Your task to perform on an android device: add a contact in the contacts app Image 0: 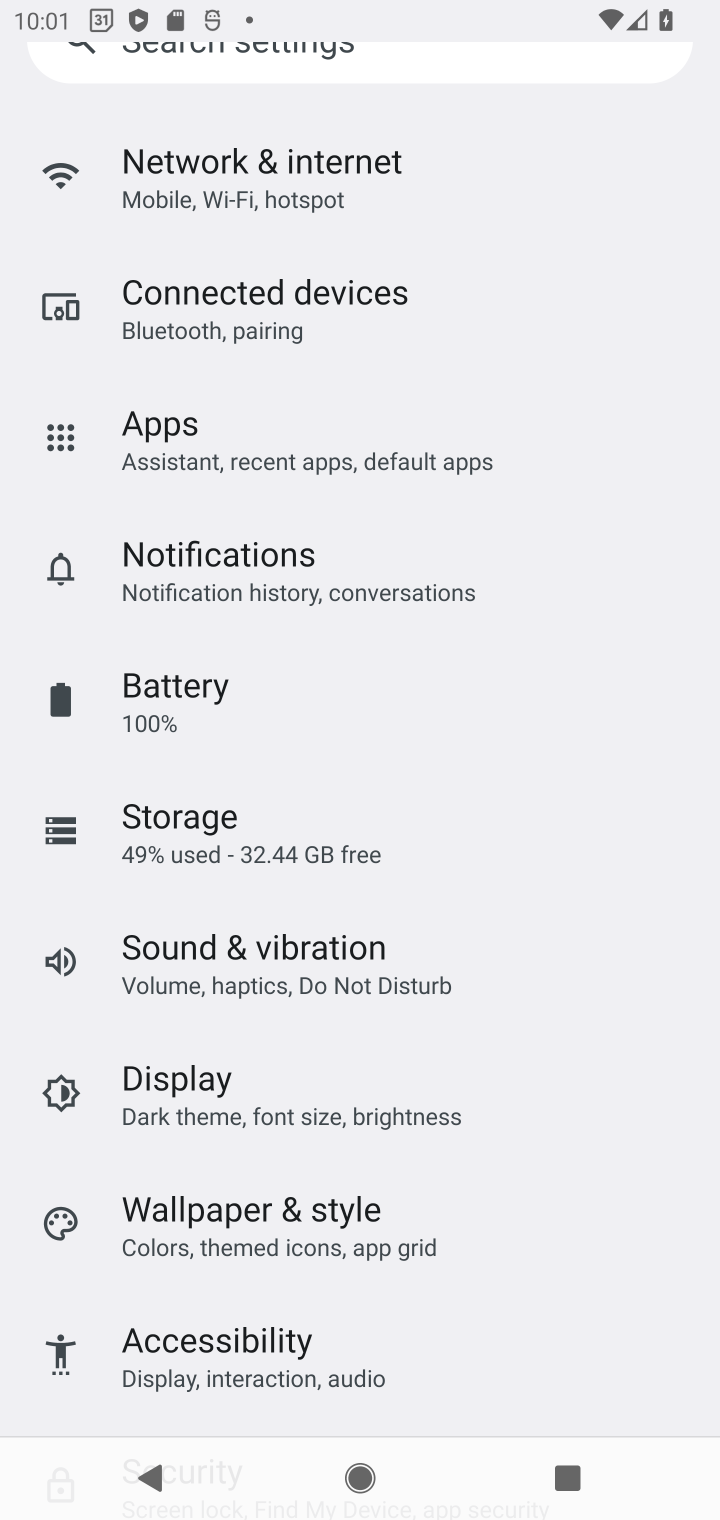
Step 0: press home button
Your task to perform on an android device: add a contact in the contacts app Image 1: 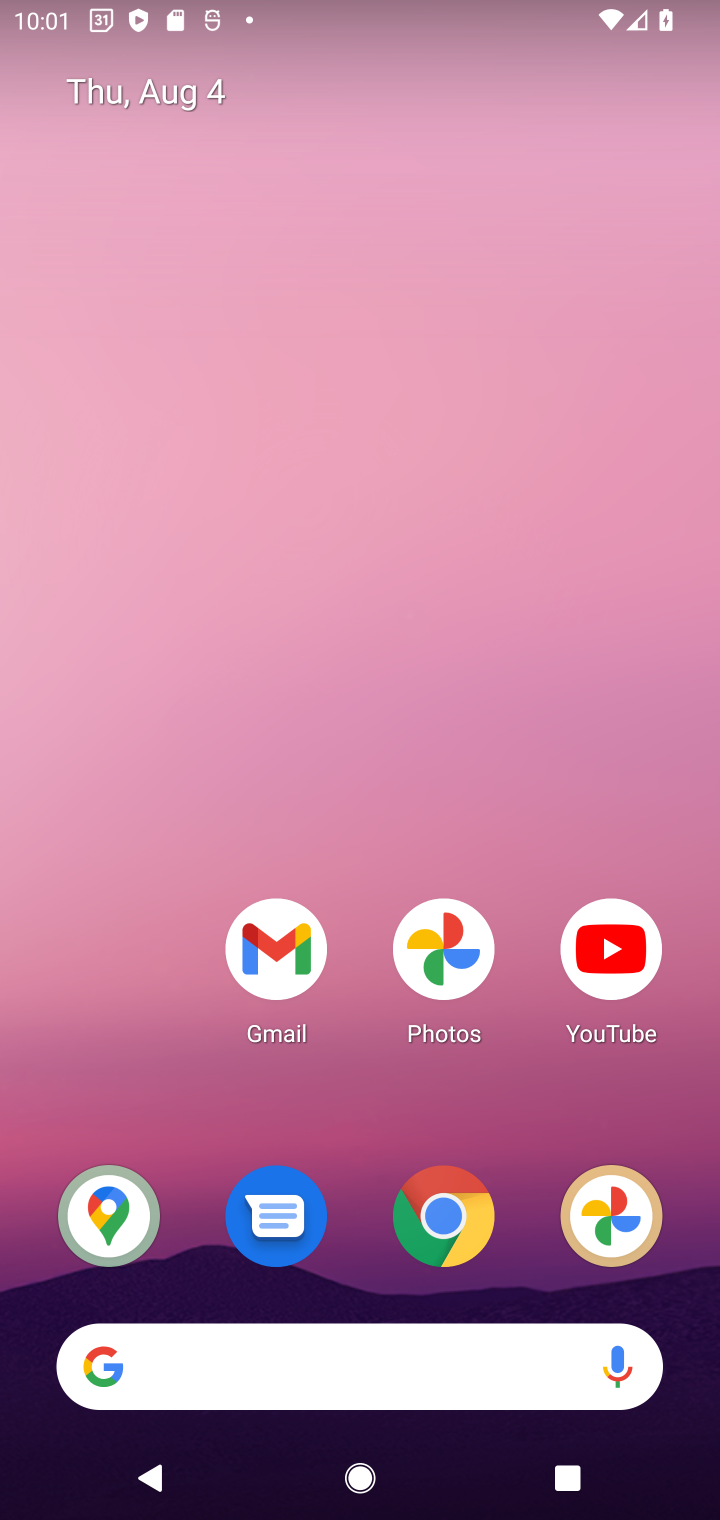
Step 1: drag from (296, 1374) to (354, 164)
Your task to perform on an android device: add a contact in the contacts app Image 2: 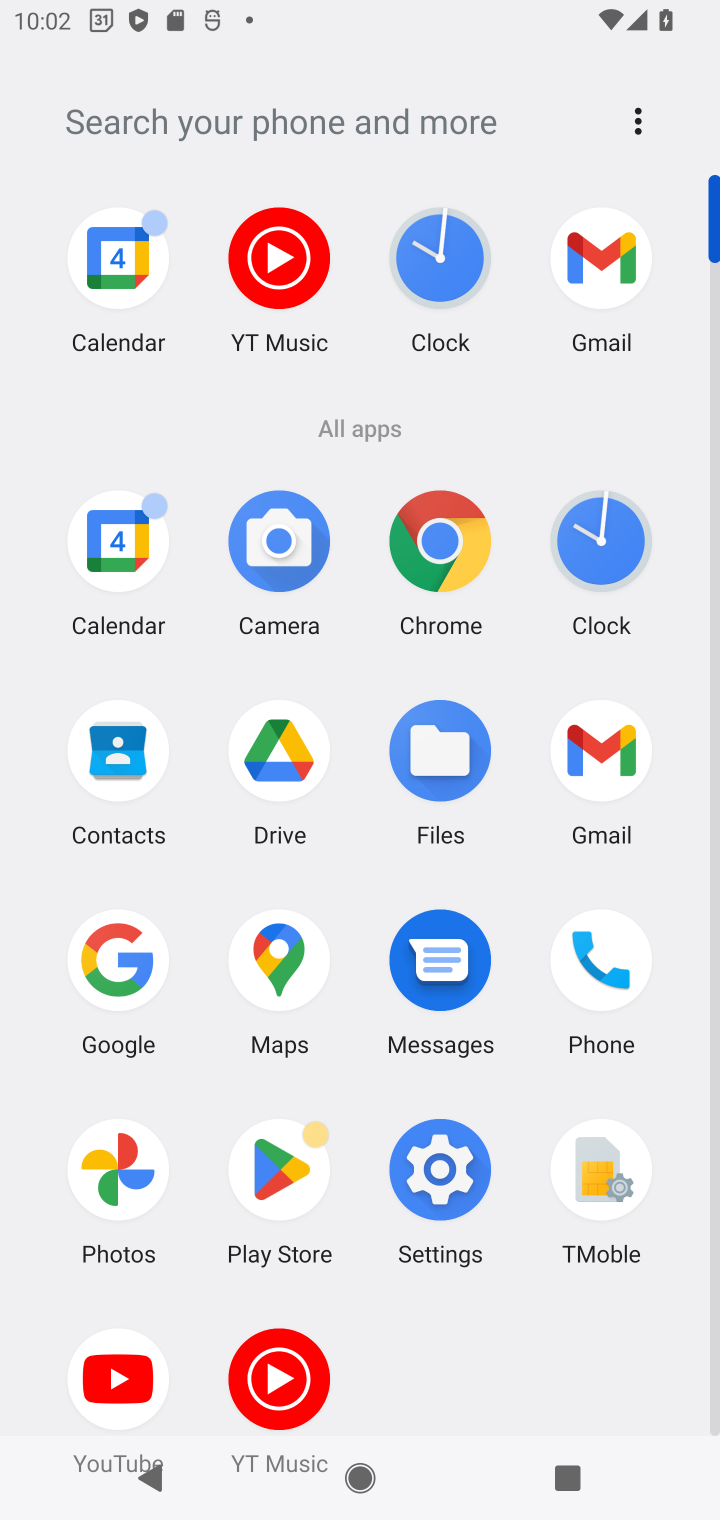
Step 2: click (119, 753)
Your task to perform on an android device: add a contact in the contacts app Image 3: 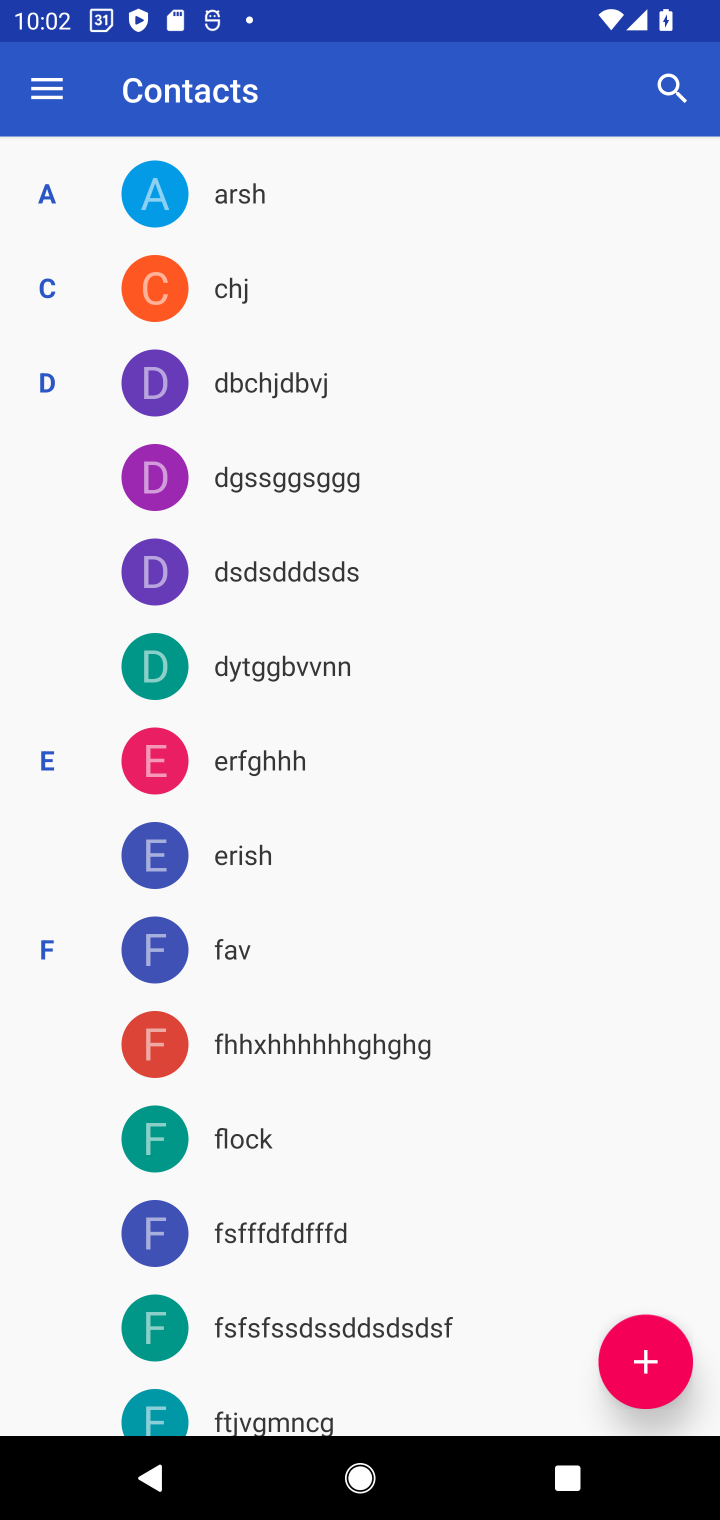
Step 3: click (644, 1364)
Your task to perform on an android device: add a contact in the contacts app Image 4: 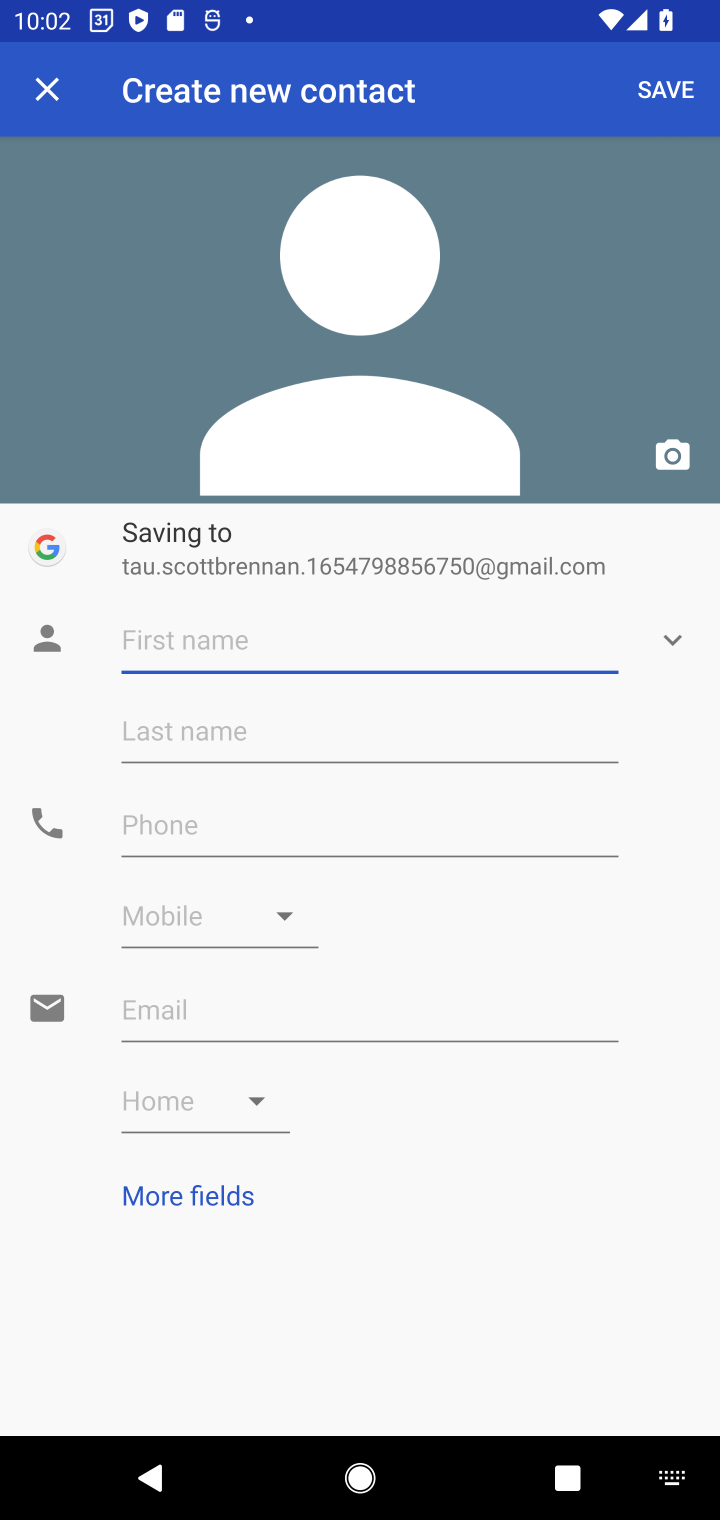
Step 4: type "Ayush"
Your task to perform on an android device: add a contact in the contacts app Image 5: 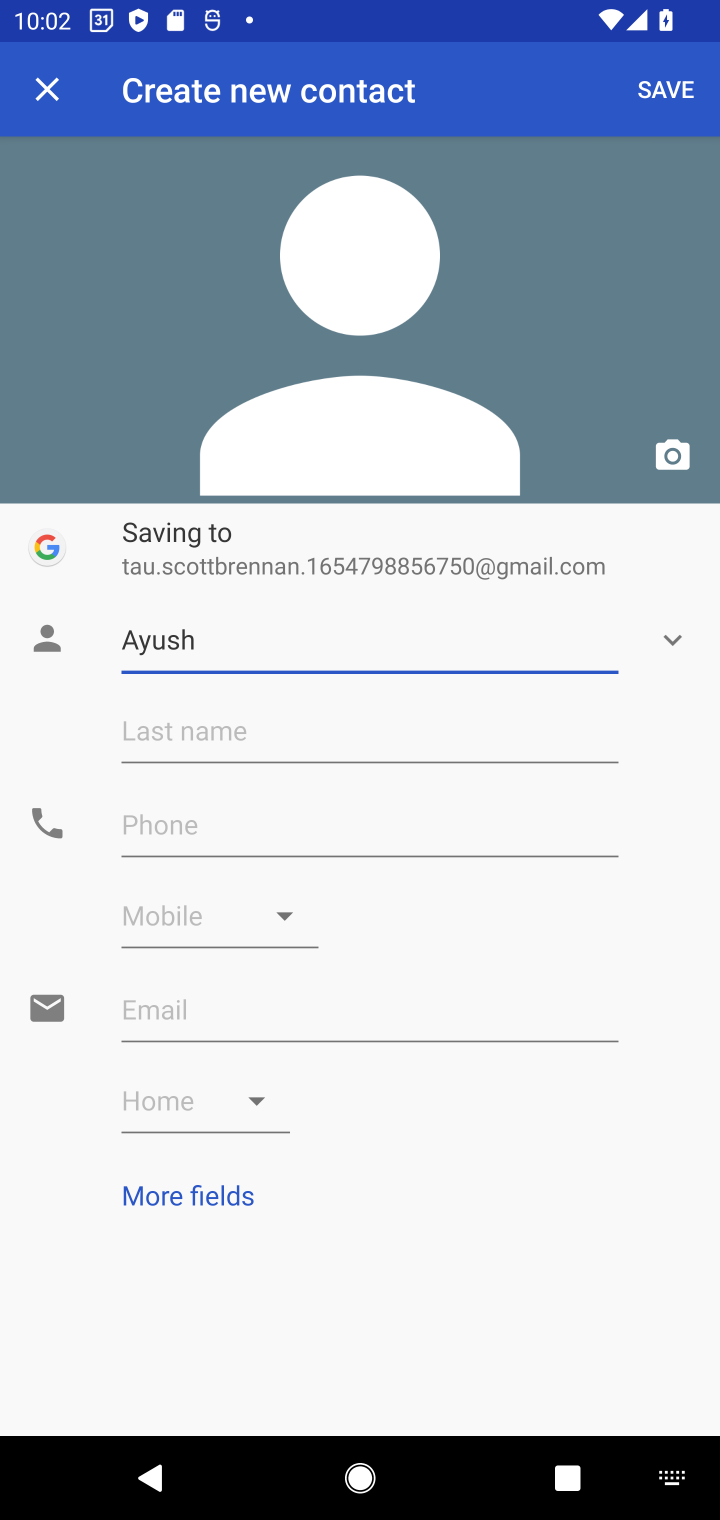
Step 5: click (381, 760)
Your task to perform on an android device: add a contact in the contacts app Image 6: 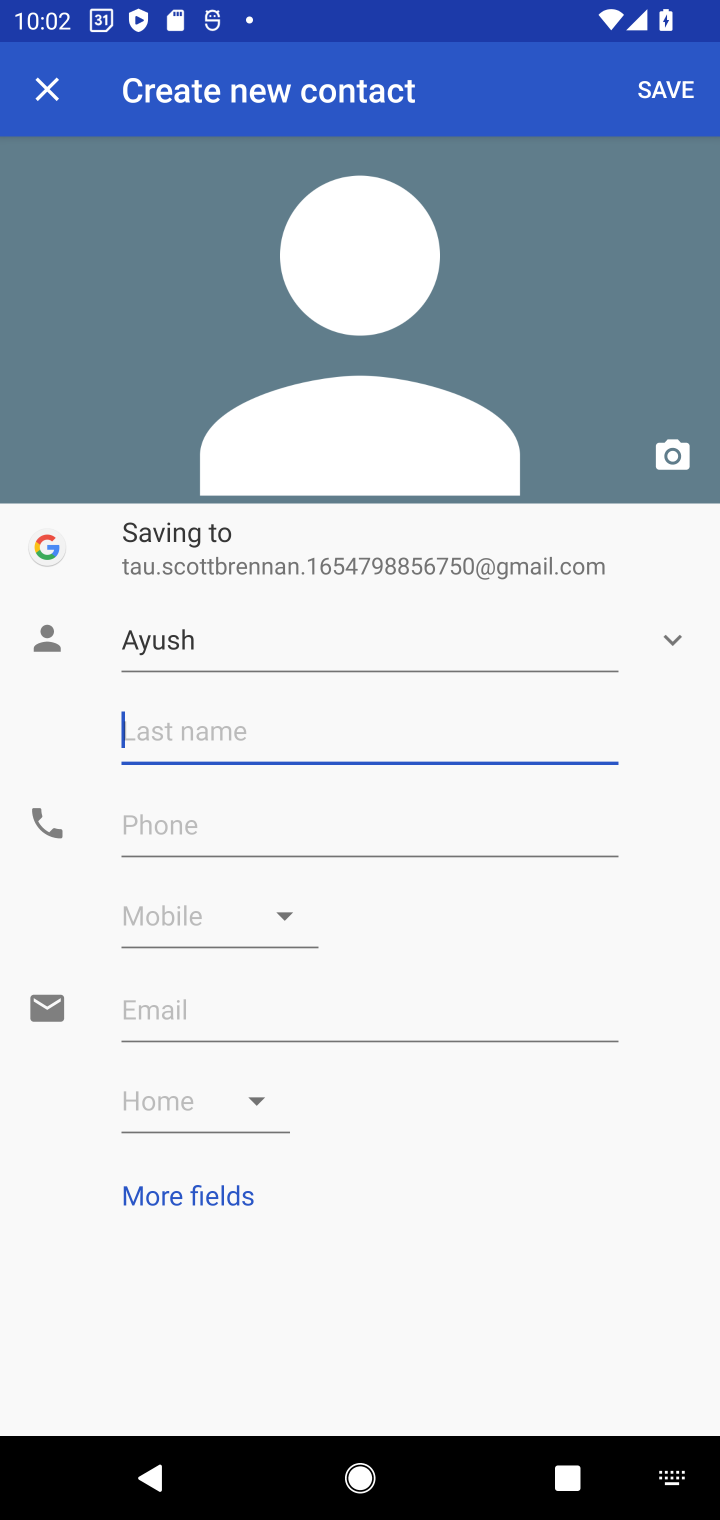
Step 6: type "Mishra"
Your task to perform on an android device: add a contact in the contacts app Image 7: 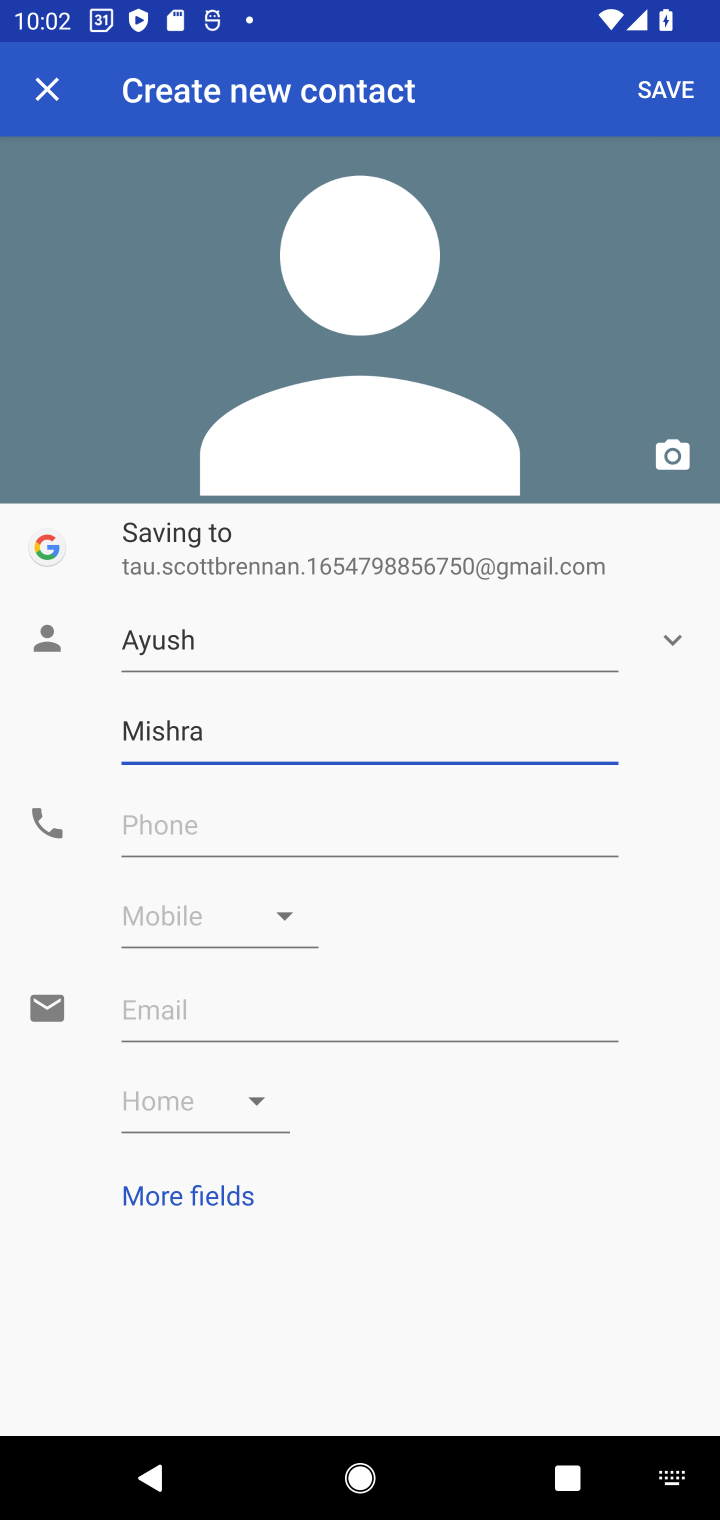
Step 7: click (479, 830)
Your task to perform on an android device: add a contact in the contacts app Image 8: 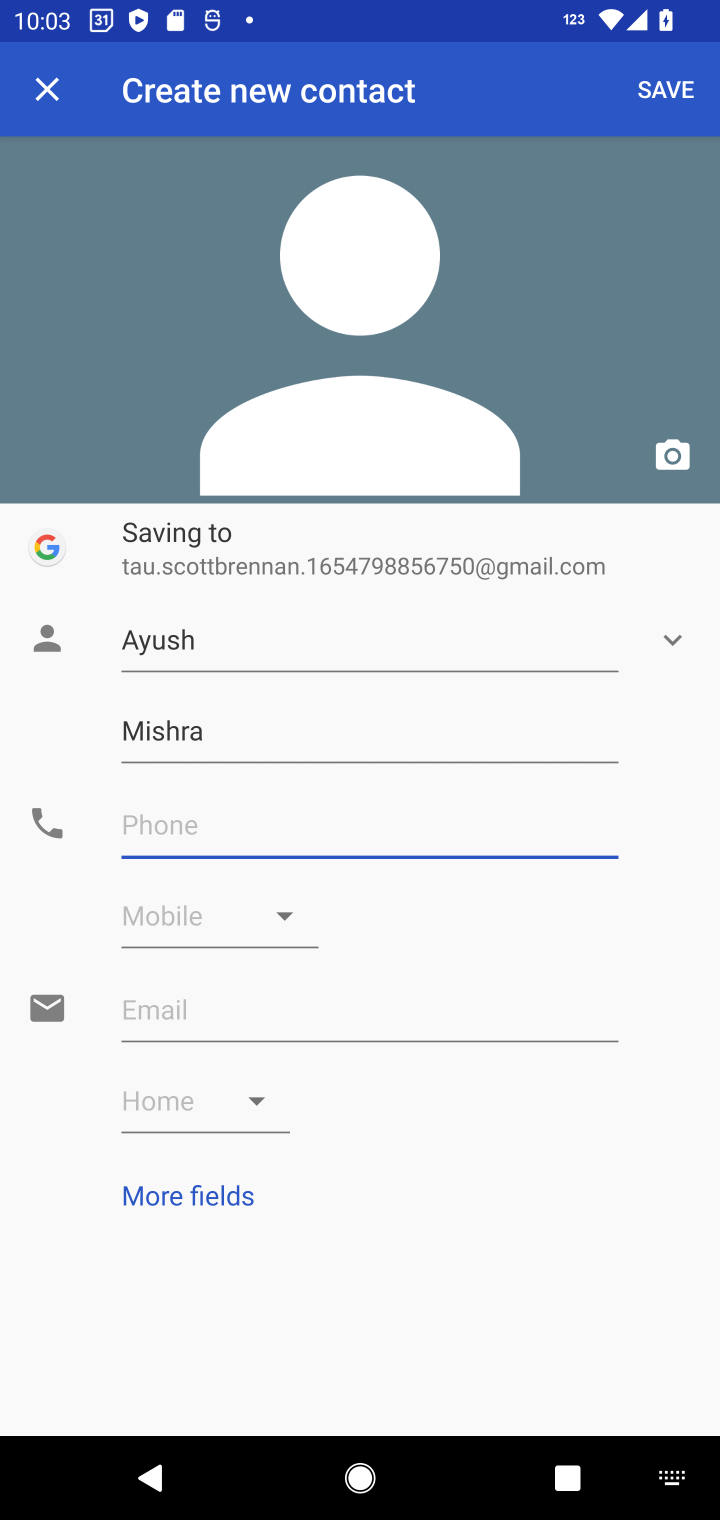
Step 8: type "09988563165"
Your task to perform on an android device: add a contact in the contacts app Image 9: 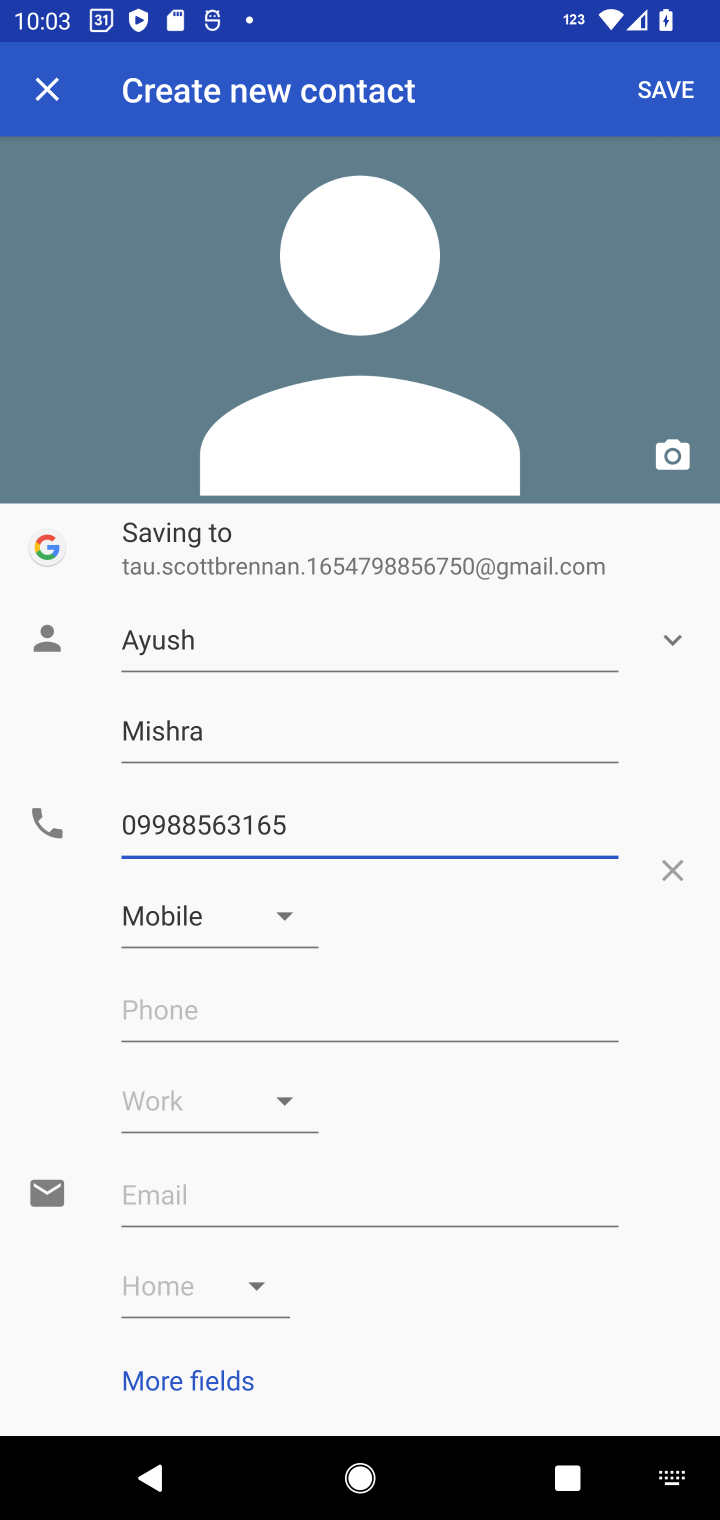
Step 9: click (655, 102)
Your task to perform on an android device: add a contact in the contacts app Image 10: 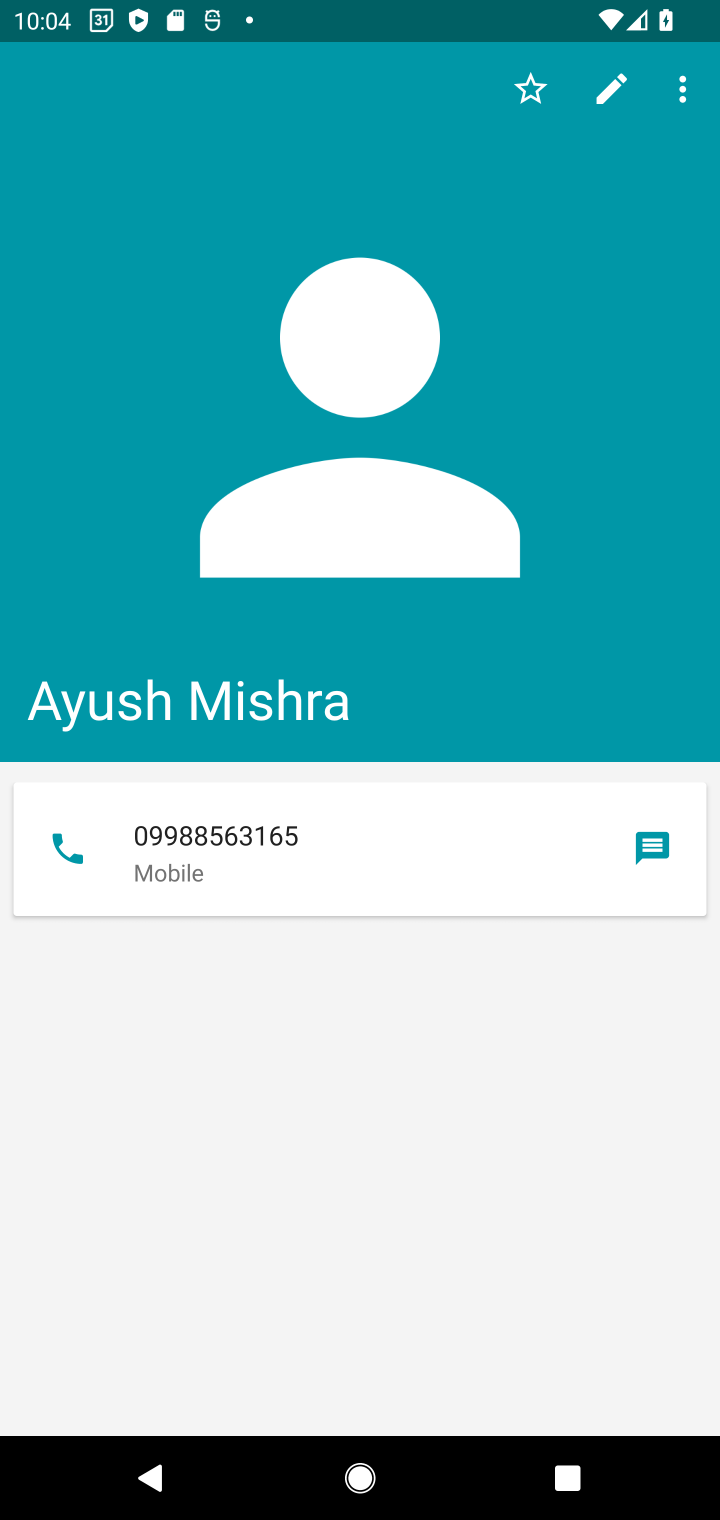
Step 10: task complete